Your task to perform on an android device: manage bookmarks in the chrome app Image 0: 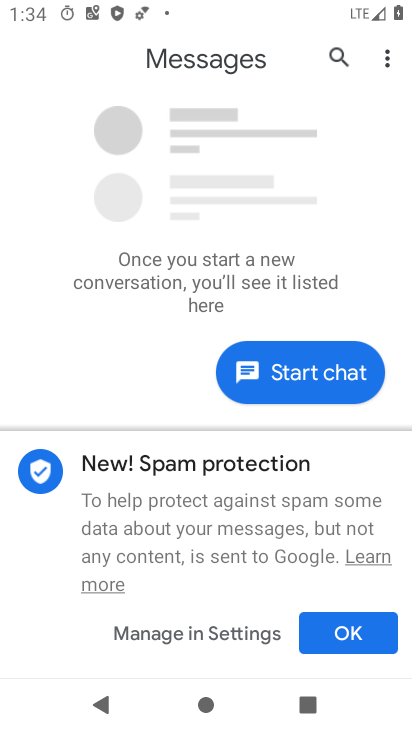
Step 0: click (192, 646)
Your task to perform on an android device: manage bookmarks in the chrome app Image 1: 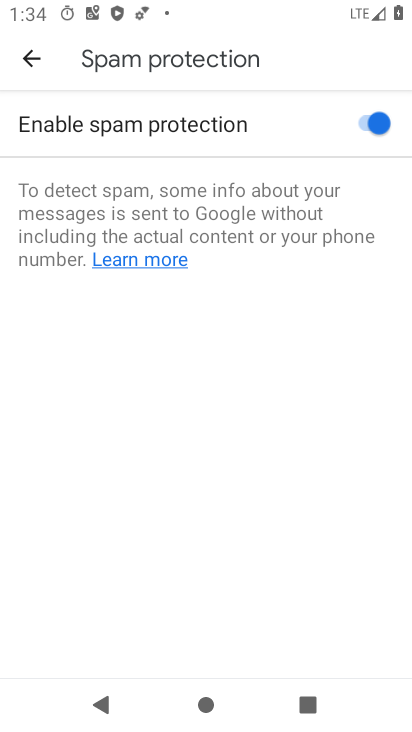
Step 1: press home button
Your task to perform on an android device: manage bookmarks in the chrome app Image 2: 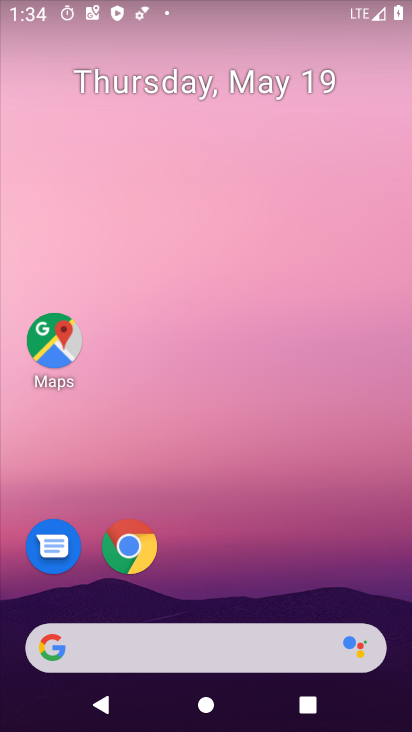
Step 2: click (136, 549)
Your task to perform on an android device: manage bookmarks in the chrome app Image 3: 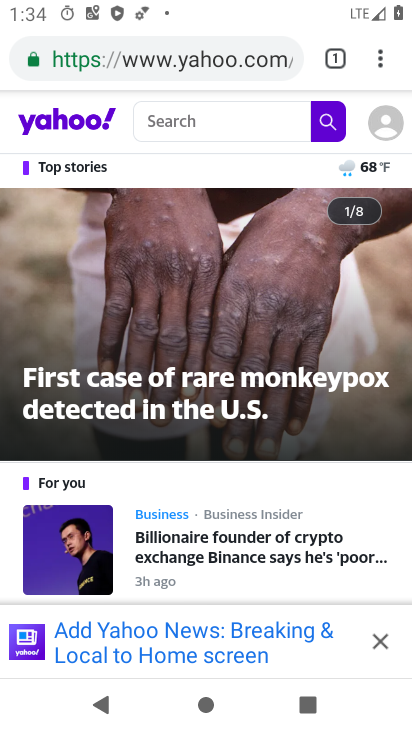
Step 3: click (388, 54)
Your task to perform on an android device: manage bookmarks in the chrome app Image 4: 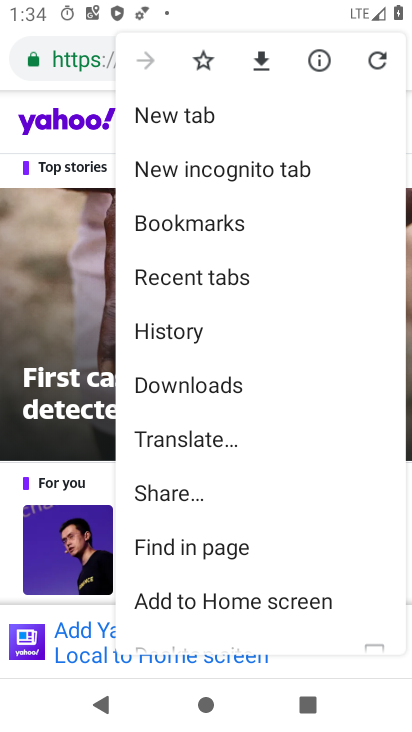
Step 4: click (185, 234)
Your task to perform on an android device: manage bookmarks in the chrome app Image 5: 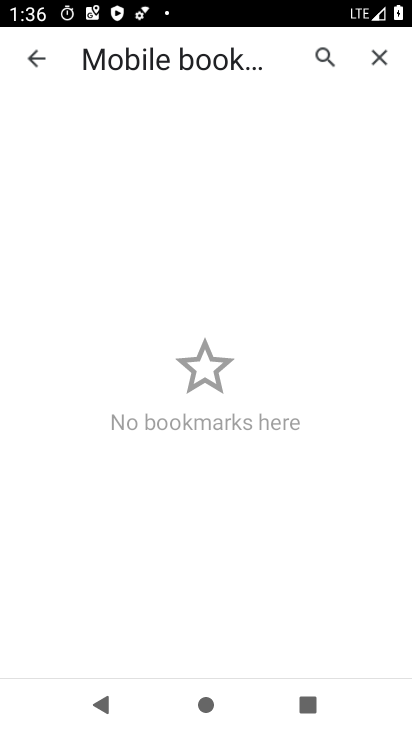
Step 5: task complete